Your task to perform on an android device: open the mobile data screen to see how much data has been used Image 0: 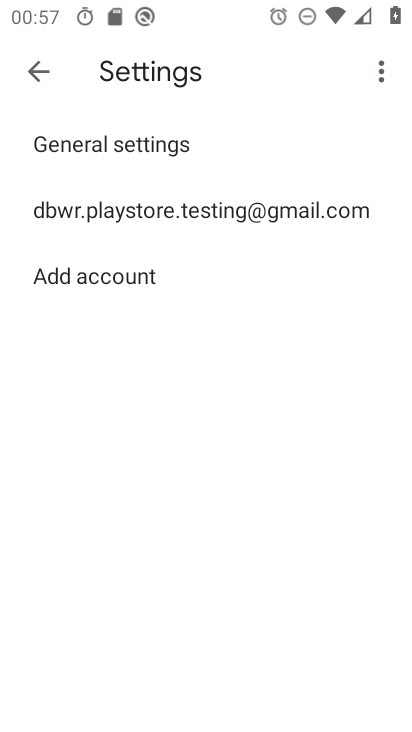
Step 0: press home button
Your task to perform on an android device: open the mobile data screen to see how much data has been used Image 1: 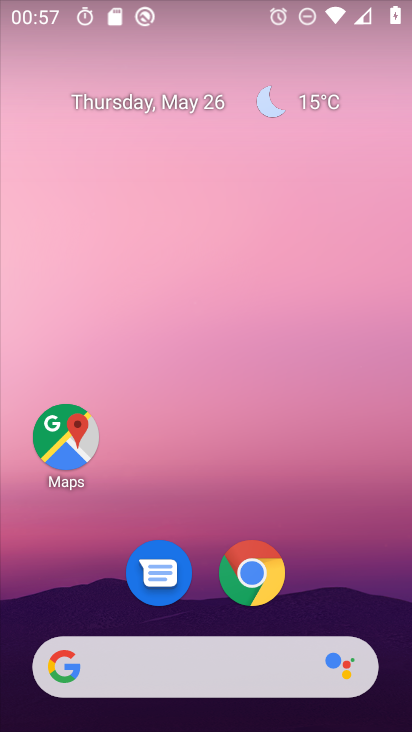
Step 1: drag from (330, 607) to (303, 21)
Your task to perform on an android device: open the mobile data screen to see how much data has been used Image 2: 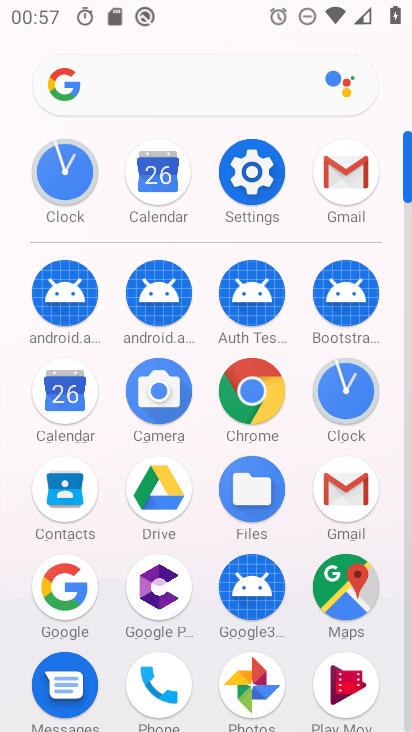
Step 2: click (246, 180)
Your task to perform on an android device: open the mobile data screen to see how much data has been used Image 3: 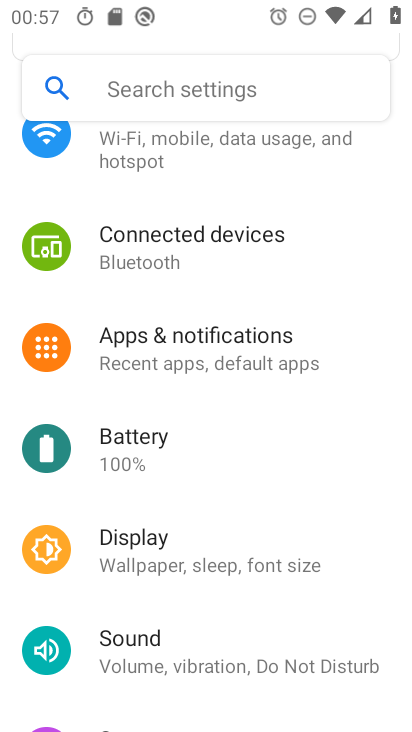
Step 3: drag from (220, 219) to (223, 388)
Your task to perform on an android device: open the mobile data screen to see how much data has been used Image 4: 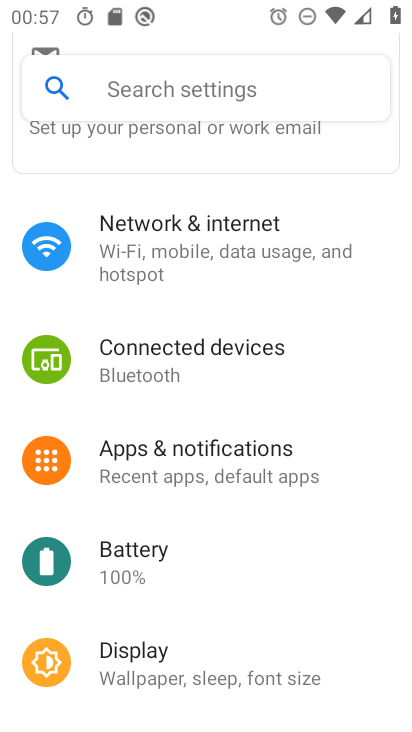
Step 4: click (149, 252)
Your task to perform on an android device: open the mobile data screen to see how much data has been used Image 5: 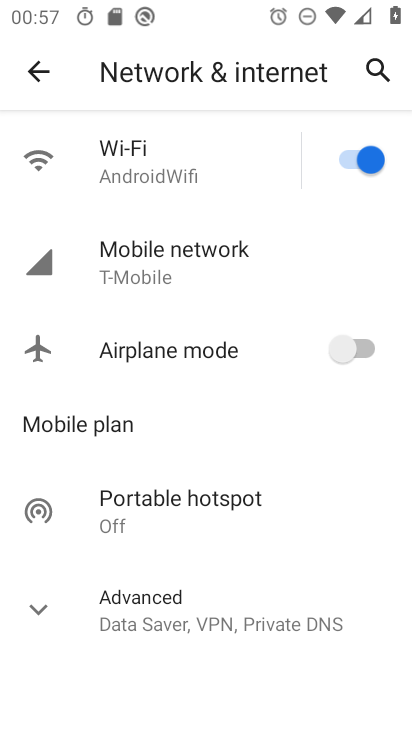
Step 5: click (149, 252)
Your task to perform on an android device: open the mobile data screen to see how much data has been used Image 6: 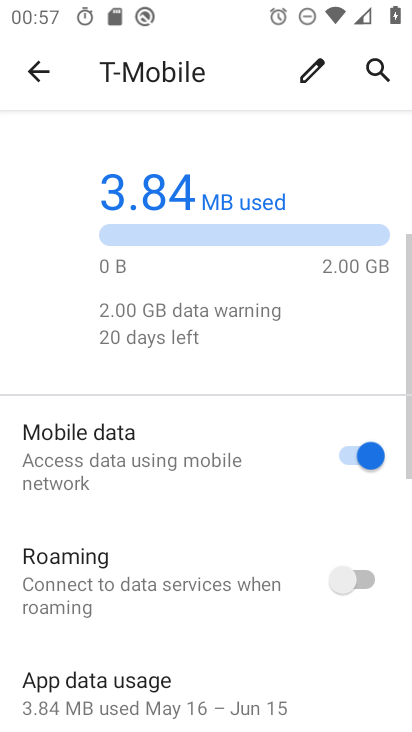
Step 6: drag from (127, 623) to (117, 342)
Your task to perform on an android device: open the mobile data screen to see how much data has been used Image 7: 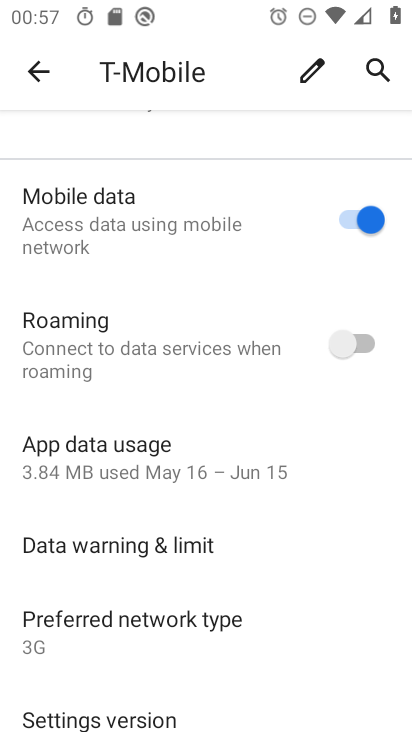
Step 7: click (74, 480)
Your task to perform on an android device: open the mobile data screen to see how much data has been used Image 8: 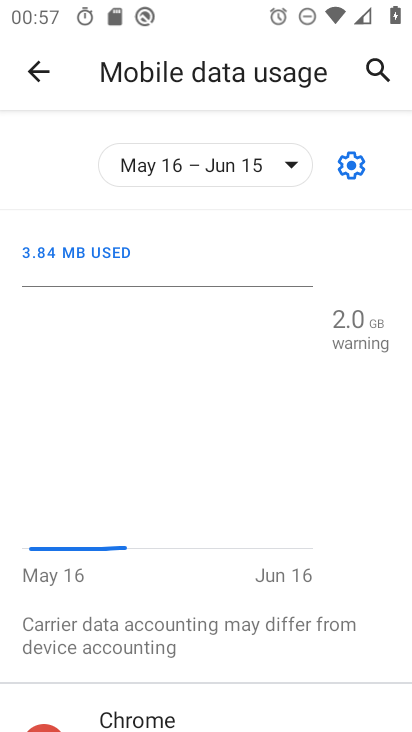
Step 8: task complete